Your task to perform on an android device: Open CNN.com Image 0: 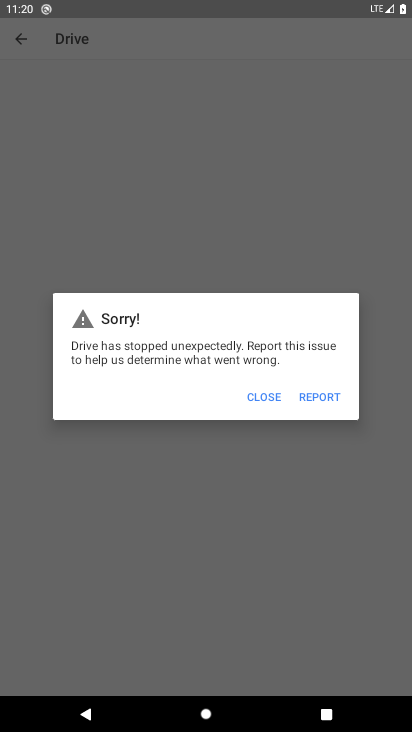
Step 0: press home button
Your task to perform on an android device: Open CNN.com Image 1: 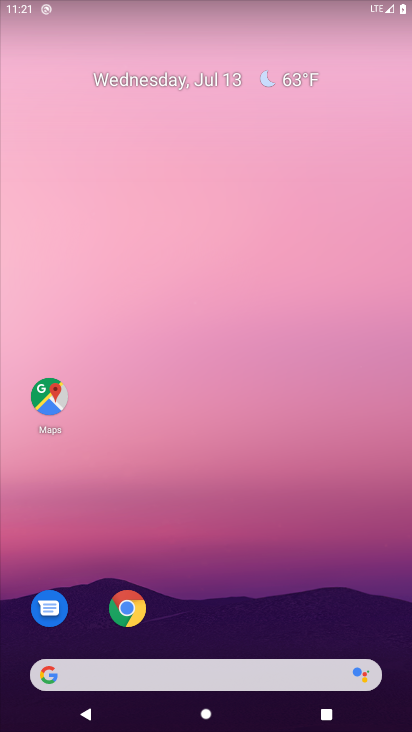
Step 1: drag from (286, 615) to (387, 127)
Your task to perform on an android device: Open CNN.com Image 2: 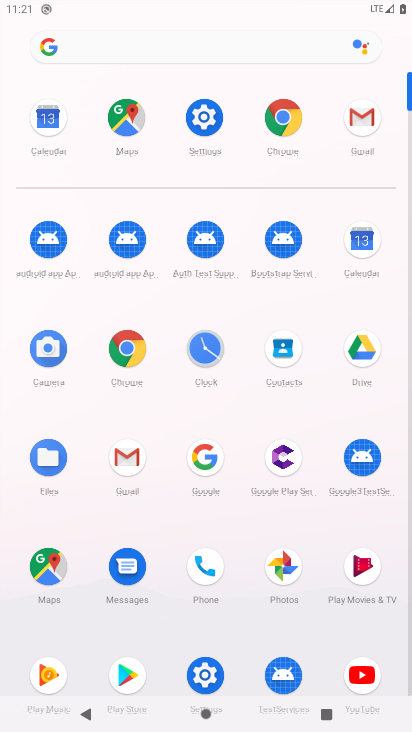
Step 2: click (283, 126)
Your task to perform on an android device: Open CNN.com Image 3: 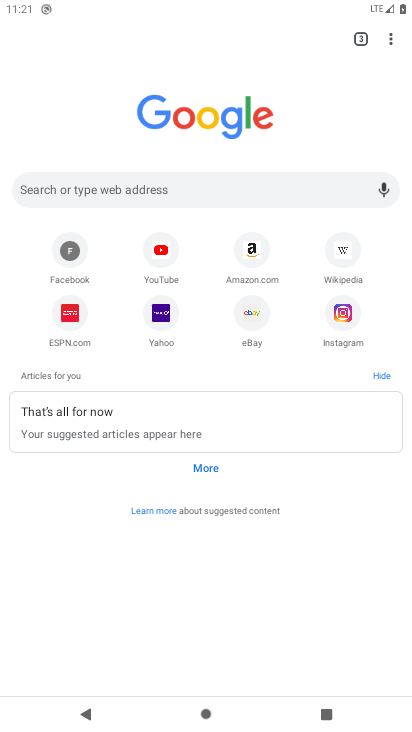
Step 3: click (190, 187)
Your task to perform on an android device: Open CNN.com Image 4: 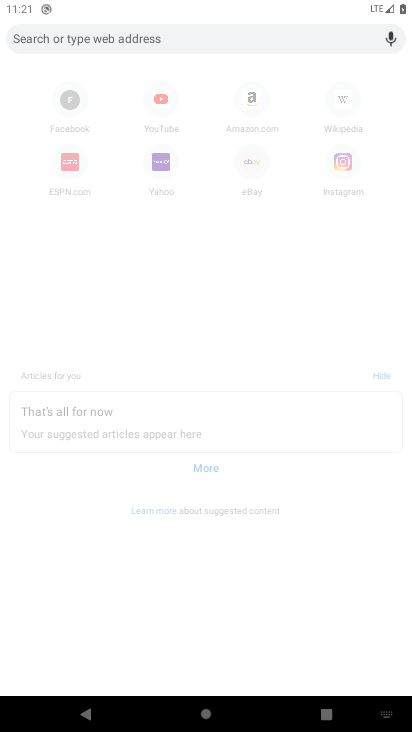
Step 4: type " CNN.com"
Your task to perform on an android device: Open CNN.com Image 5: 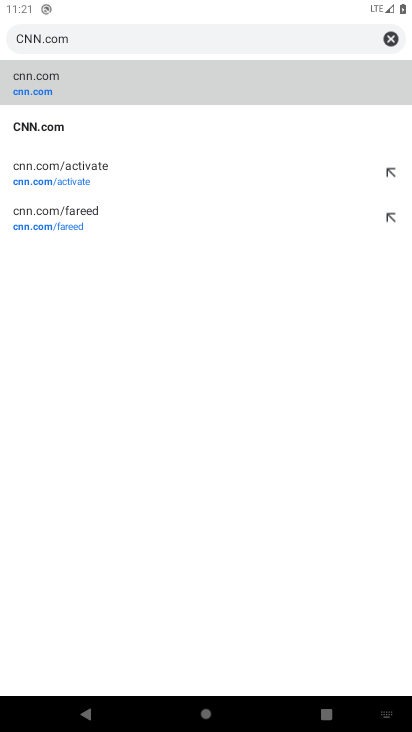
Step 5: click (44, 90)
Your task to perform on an android device: Open CNN.com Image 6: 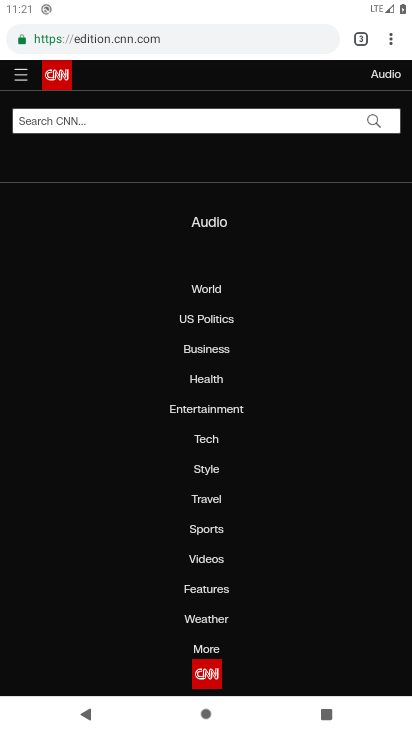
Step 6: task complete